Your task to perform on an android device: Check the news Image 0: 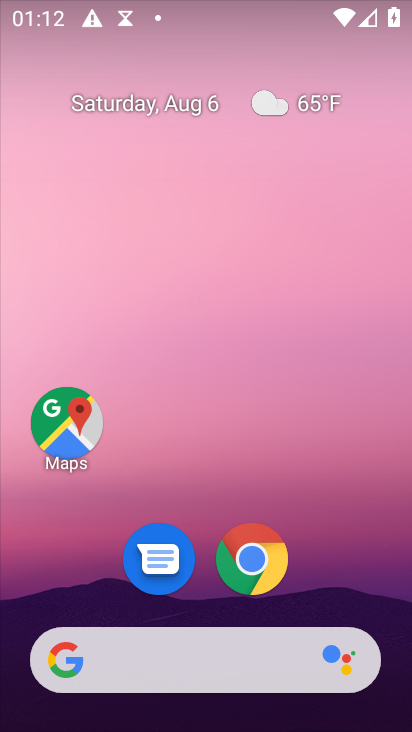
Step 0: click (278, 573)
Your task to perform on an android device: Check the news Image 1: 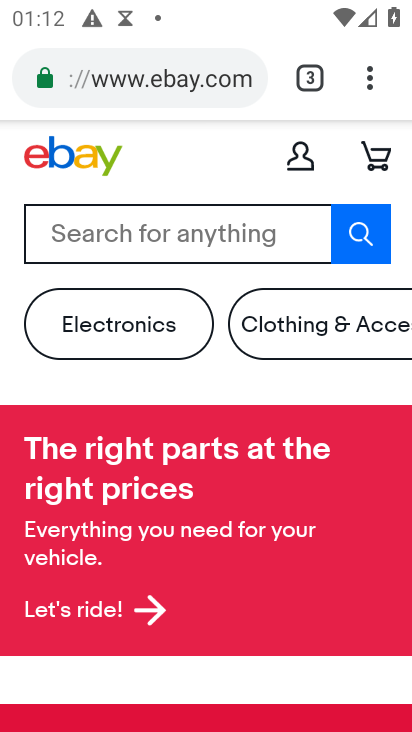
Step 1: click (209, 88)
Your task to perform on an android device: Check the news Image 2: 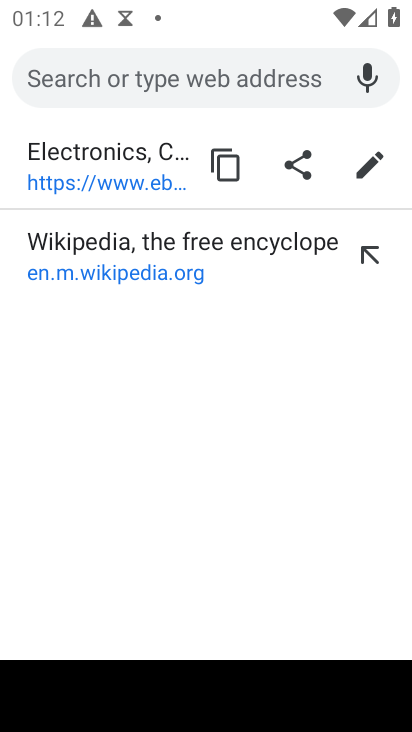
Step 2: type "news"
Your task to perform on an android device: Check the news Image 3: 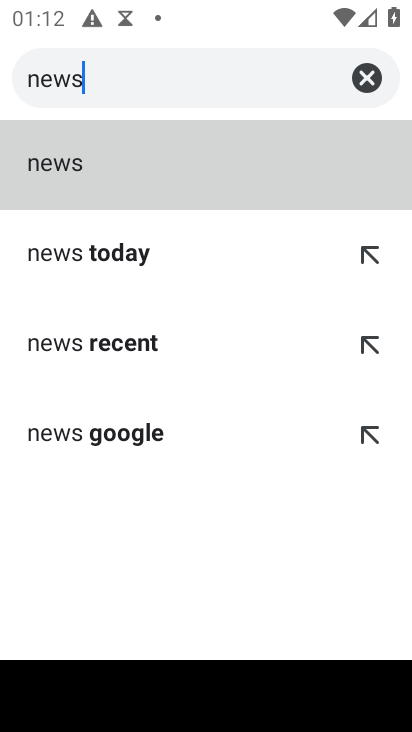
Step 3: click (50, 187)
Your task to perform on an android device: Check the news Image 4: 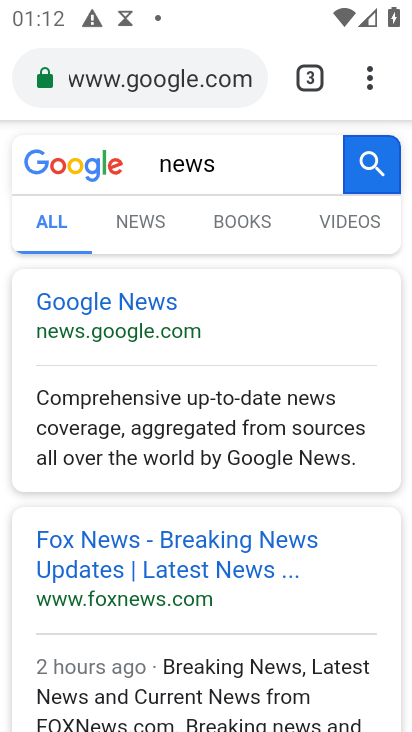
Step 4: click (97, 299)
Your task to perform on an android device: Check the news Image 5: 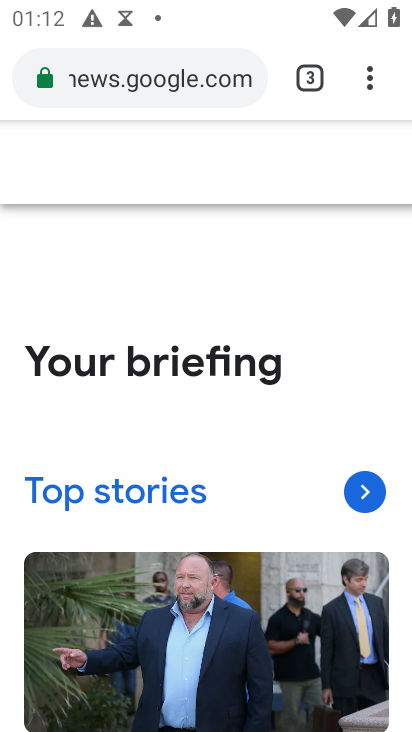
Step 5: task complete